Your task to perform on an android device: Search for Italian restaurants on Maps Image 0: 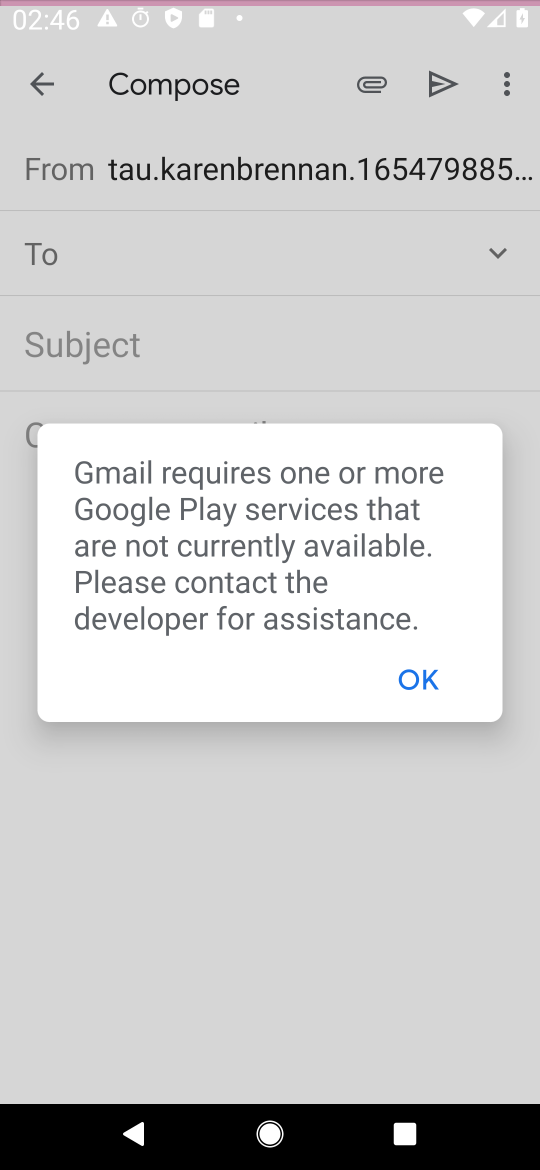
Step 0: drag from (345, 1043) to (282, 376)
Your task to perform on an android device: Search for Italian restaurants on Maps Image 1: 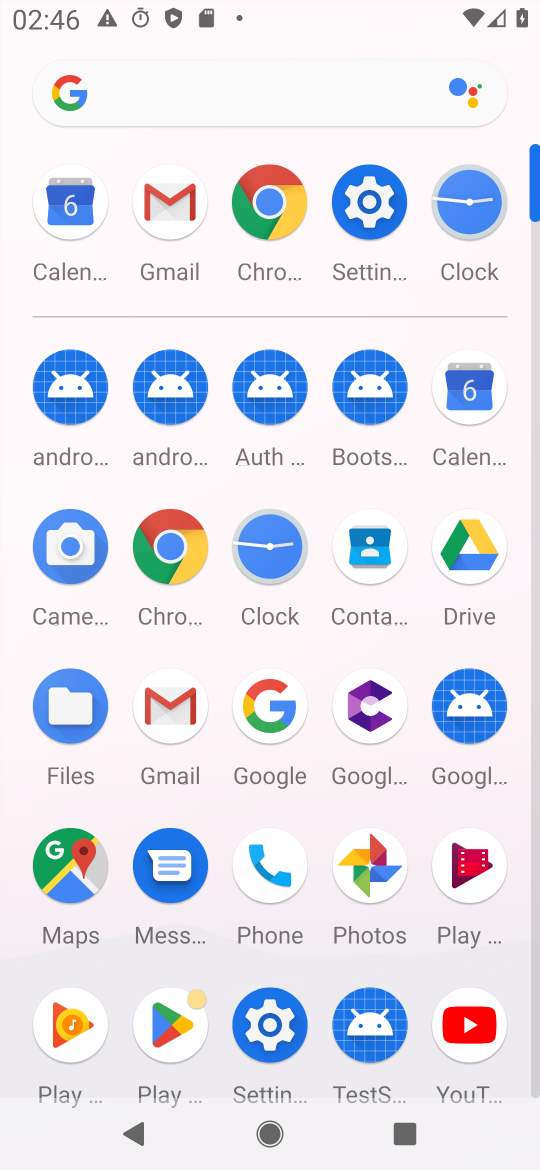
Step 1: click (383, 193)
Your task to perform on an android device: Search for Italian restaurants on Maps Image 2: 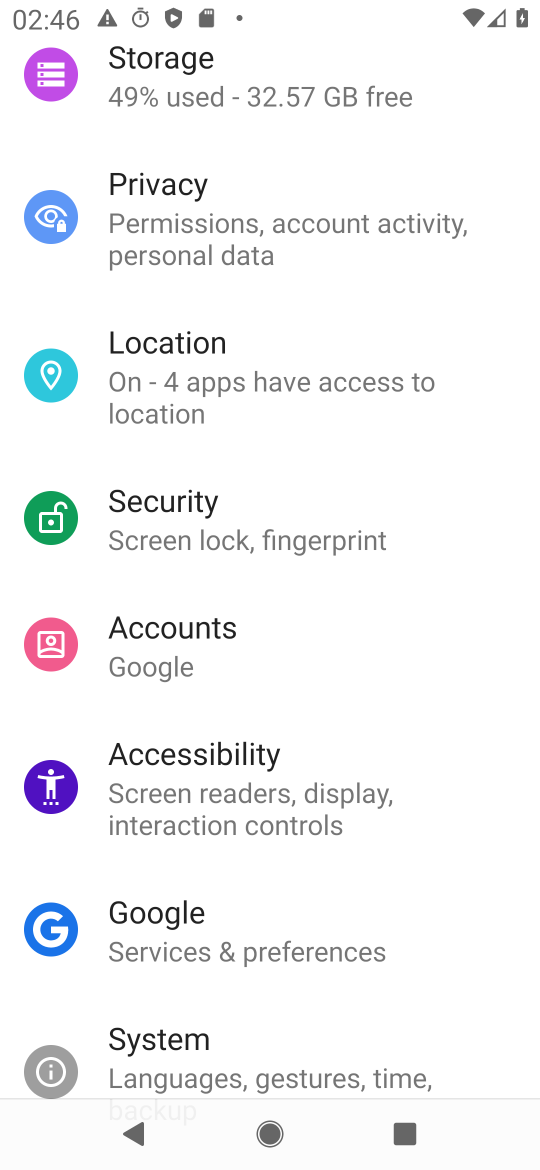
Step 2: press home button
Your task to perform on an android device: Search for Italian restaurants on Maps Image 3: 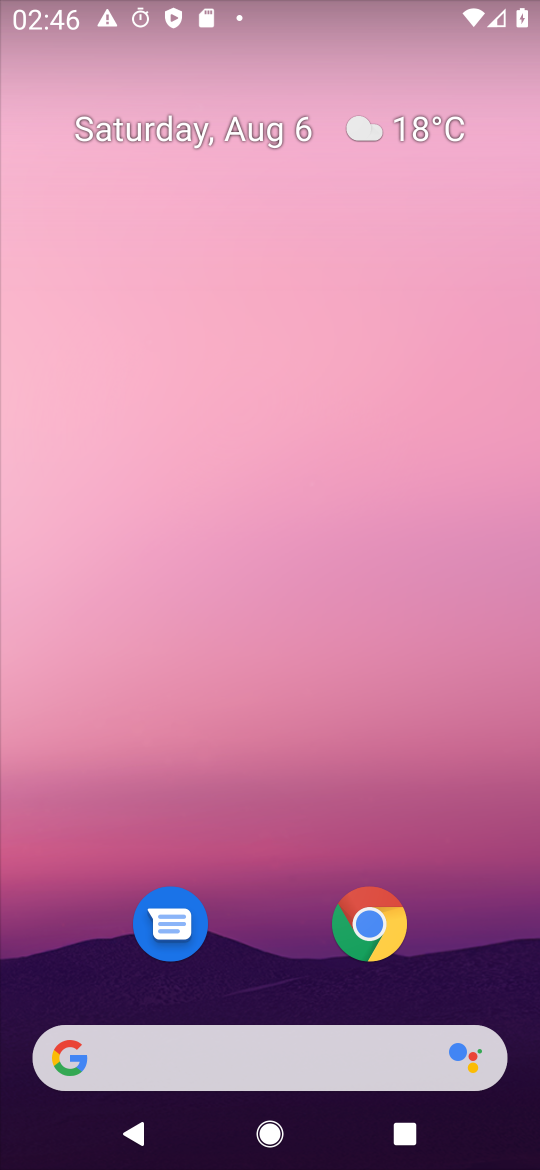
Step 3: drag from (286, 1057) to (320, 7)
Your task to perform on an android device: Search for Italian restaurants on Maps Image 4: 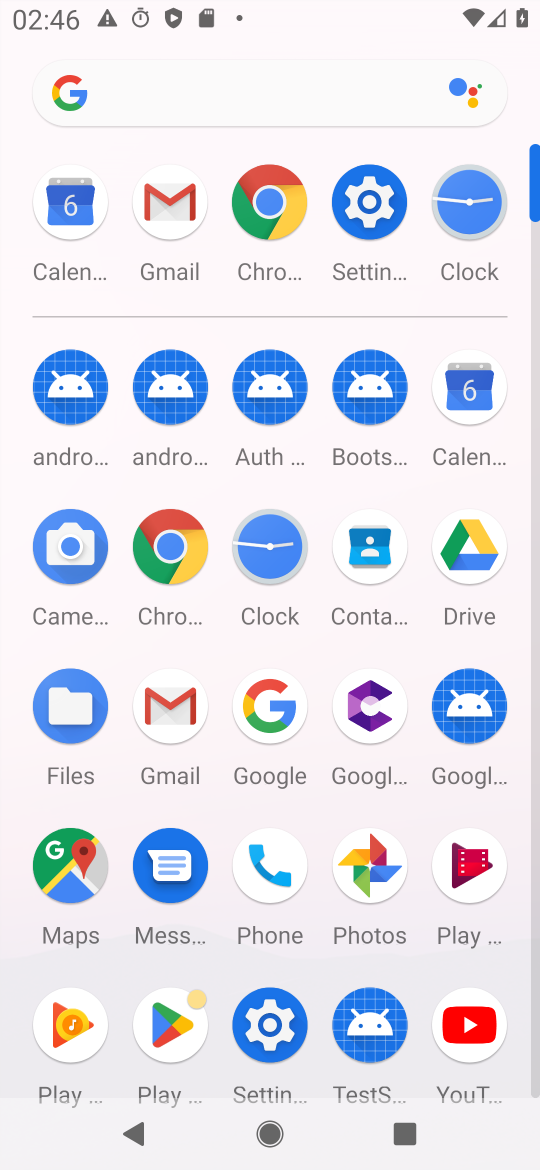
Step 4: click (73, 878)
Your task to perform on an android device: Search for Italian restaurants on Maps Image 5: 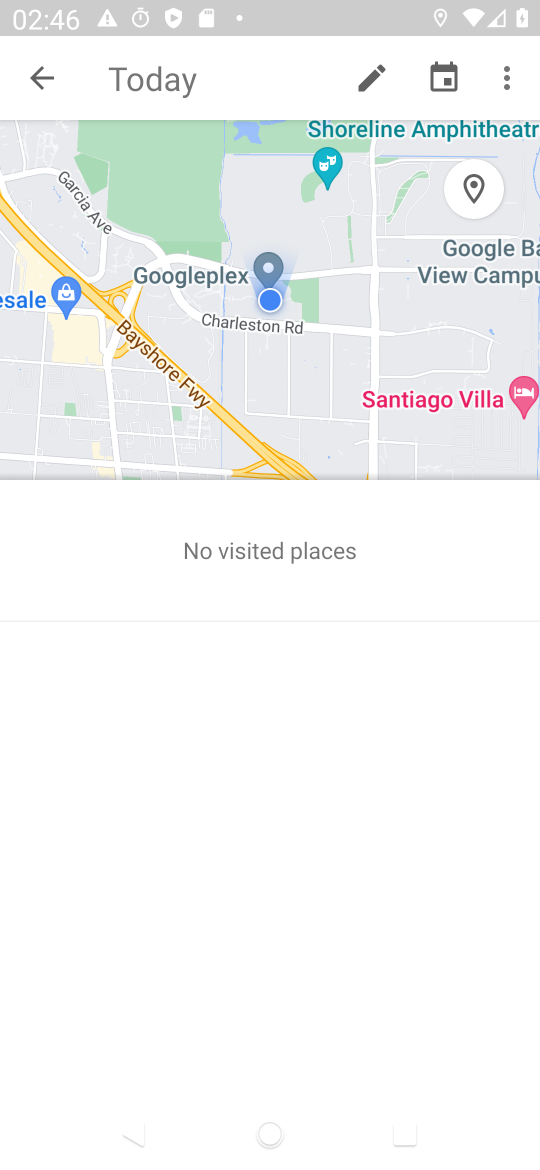
Step 5: press back button
Your task to perform on an android device: Search for Italian restaurants on Maps Image 6: 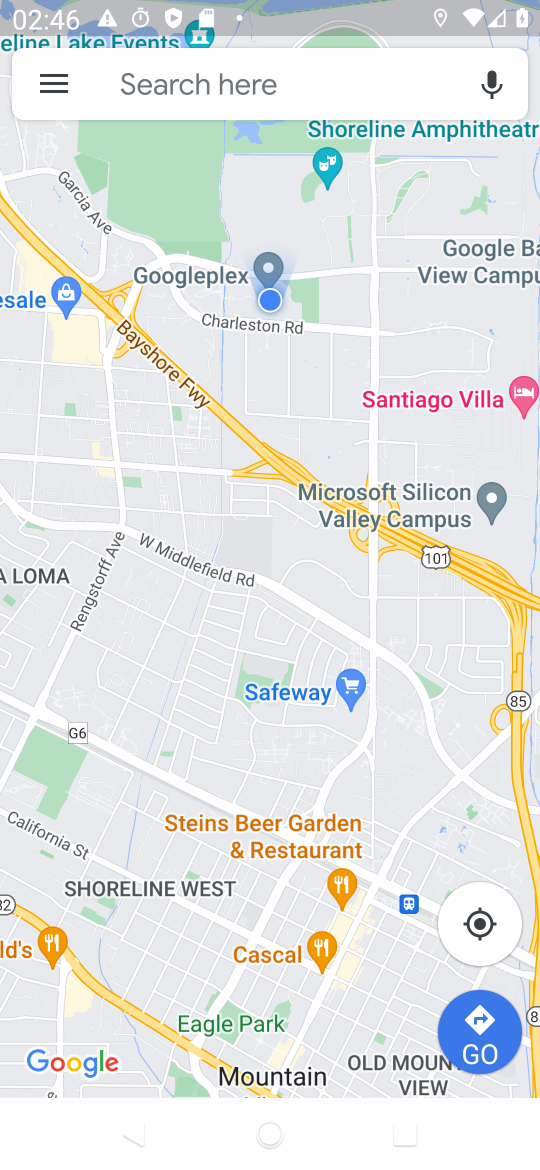
Step 6: click (129, 88)
Your task to perform on an android device: Search for Italian restaurants on Maps Image 7: 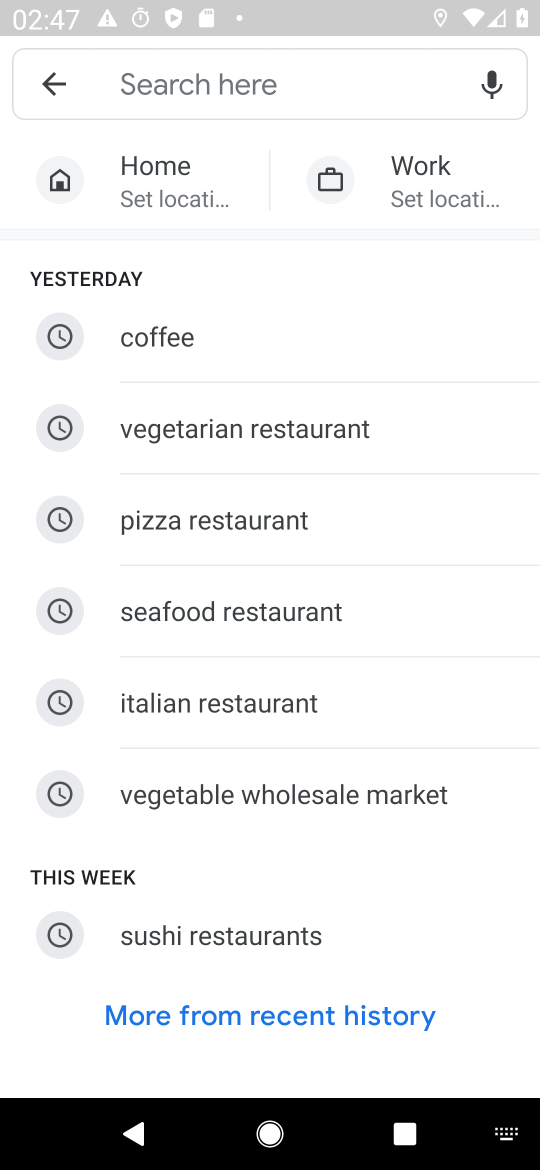
Step 7: type "italian restaurant"
Your task to perform on an android device: Search for Italian restaurants on Maps Image 8: 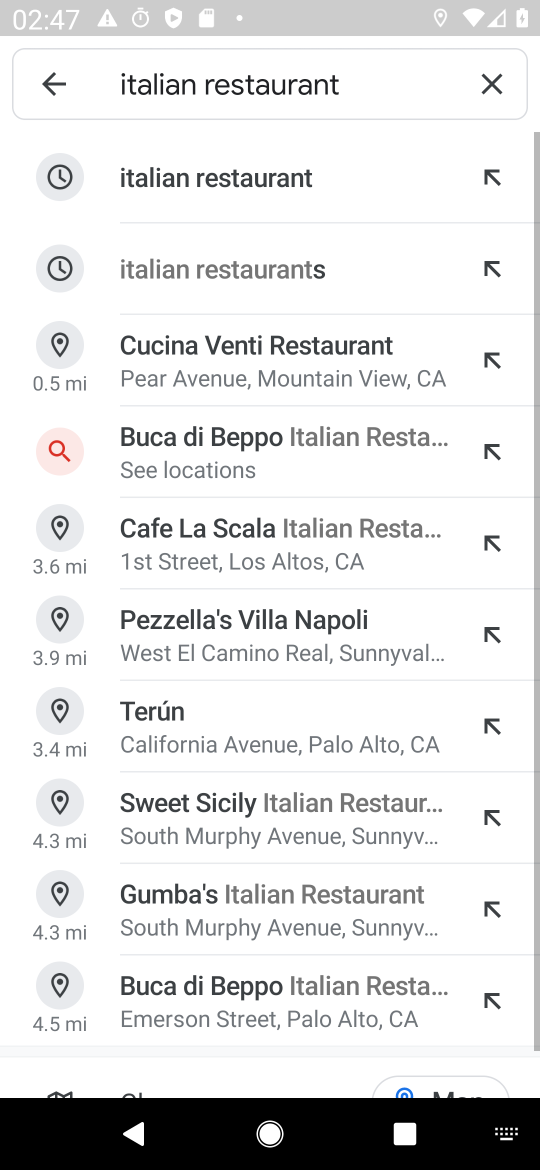
Step 8: click (266, 196)
Your task to perform on an android device: Search for Italian restaurants on Maps Image 9: 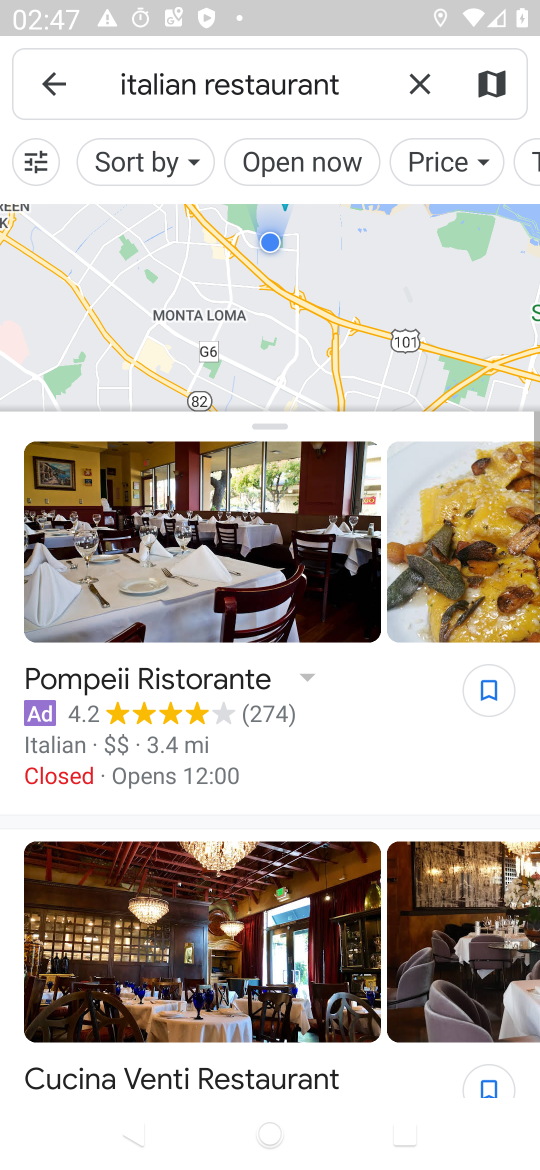
Step 9: task complete